Your task to perform on an android device: turn vacation reply on in the gmail app Image 0: 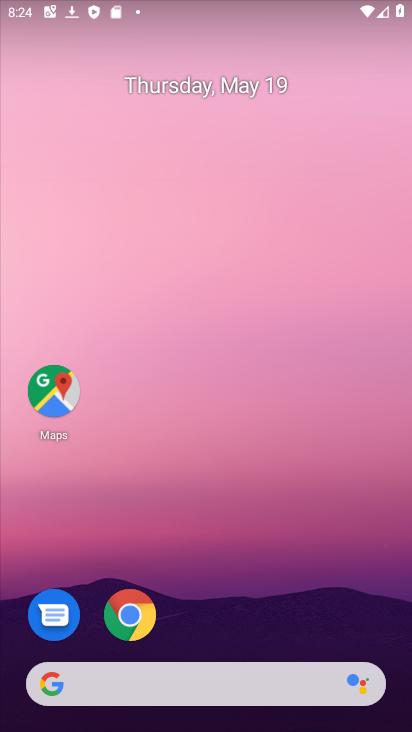
Step 0: drag from (244, 607) to (268, 139)
Your task to perform on an android device: turn vacation reply on in the gmail app Image 1: 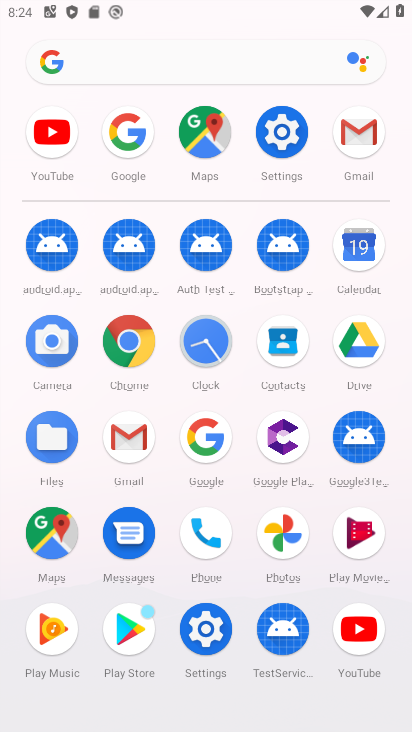
Step 1: click (130, 431)
Your task to perform on an android device: turn vacation reply on in the gmail app Image 2: 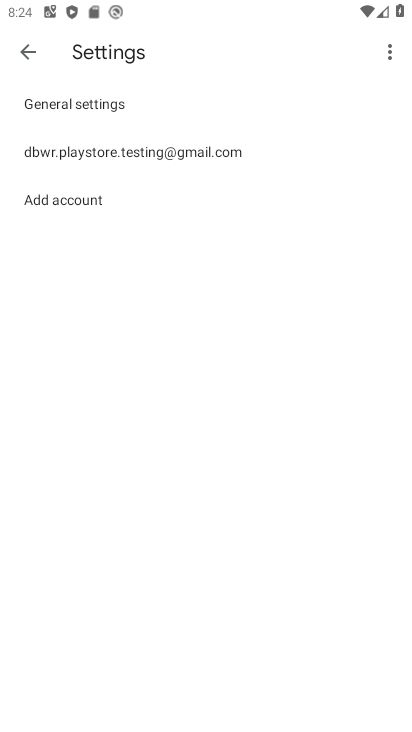
Step 2: click (138, 158)
Your task to perform on an android device: turn vacation reply on in the gmail app Image 3: 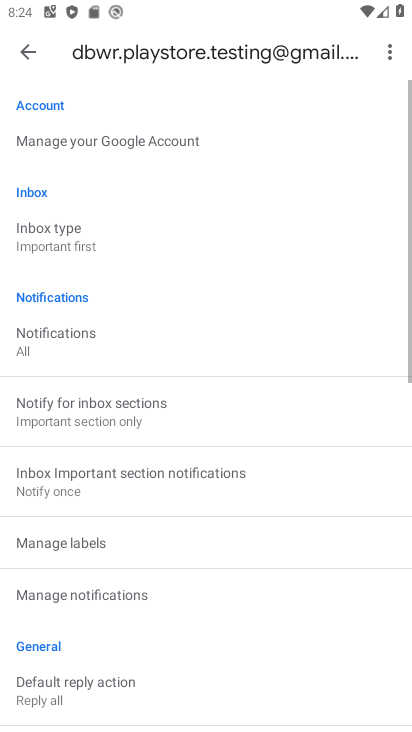
Step 3: drag from (145, 604) to (191, 198)
Your task to perform on an android device: turn vacation reply on in the gmail app Image 4: 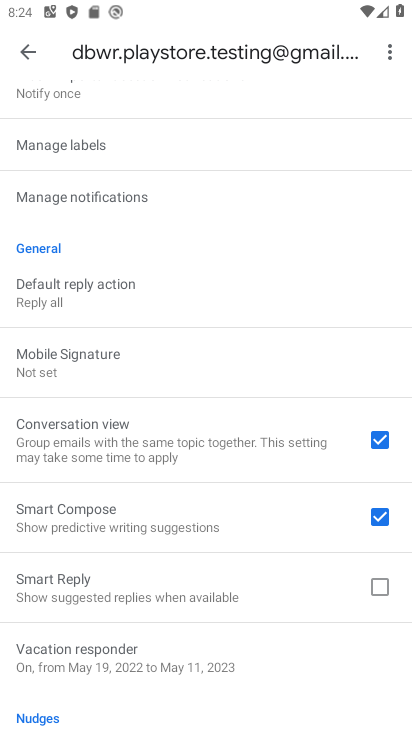
Step 4: click (111, 650)
Your task to perform on an android device: turn vacation reply on in the gmail app Image 5: 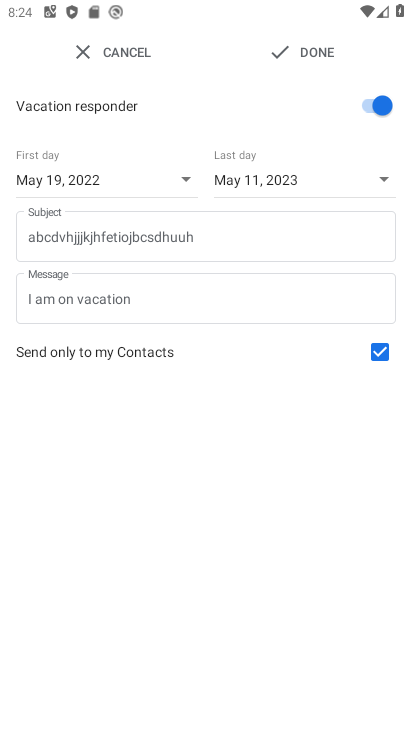
Step 5: task complete